Your task to perform on an android device: Open sound settings Image 0: 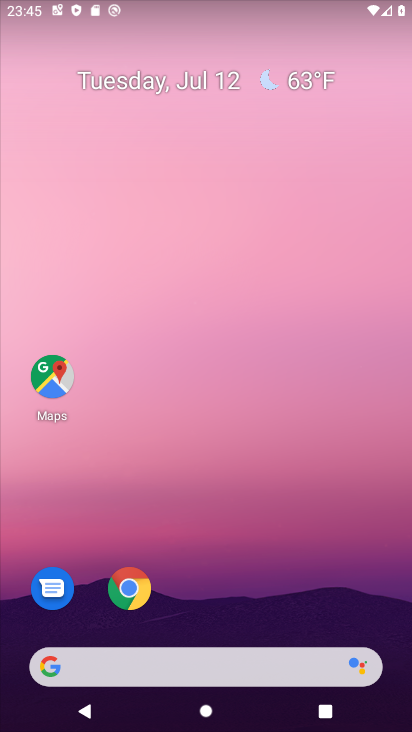
Step 0: drag from (57, 658) to (88, 210)
Your task to perform on an android device: Open sound settings Image 1: 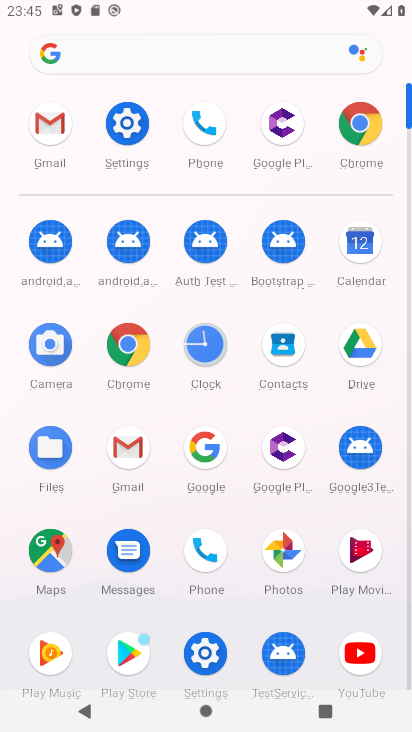
Step 1: click (204, 657)
Your task to perform on an android device: Open sound settings Image 2: 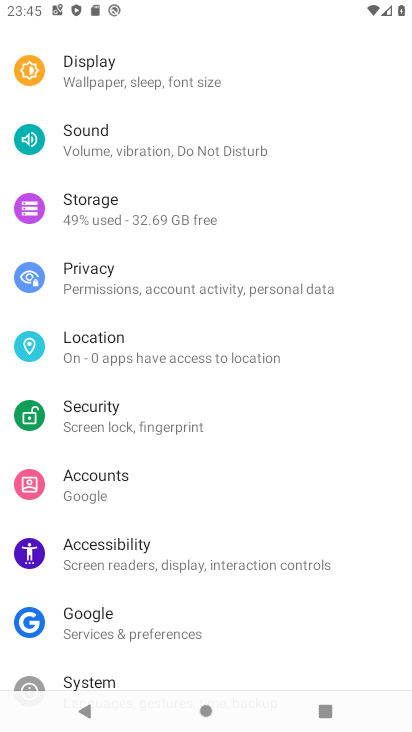
Step 2: click (110, 124)
Your task to perform on an android device: Open sound settings Image 3: 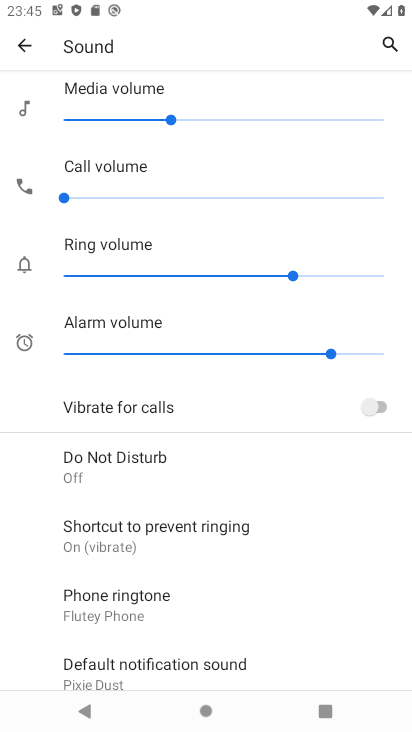
Step 3: task complete